Your task to perform on an android device: Open the Play Movies app and select the watchlist tab. Image 0: 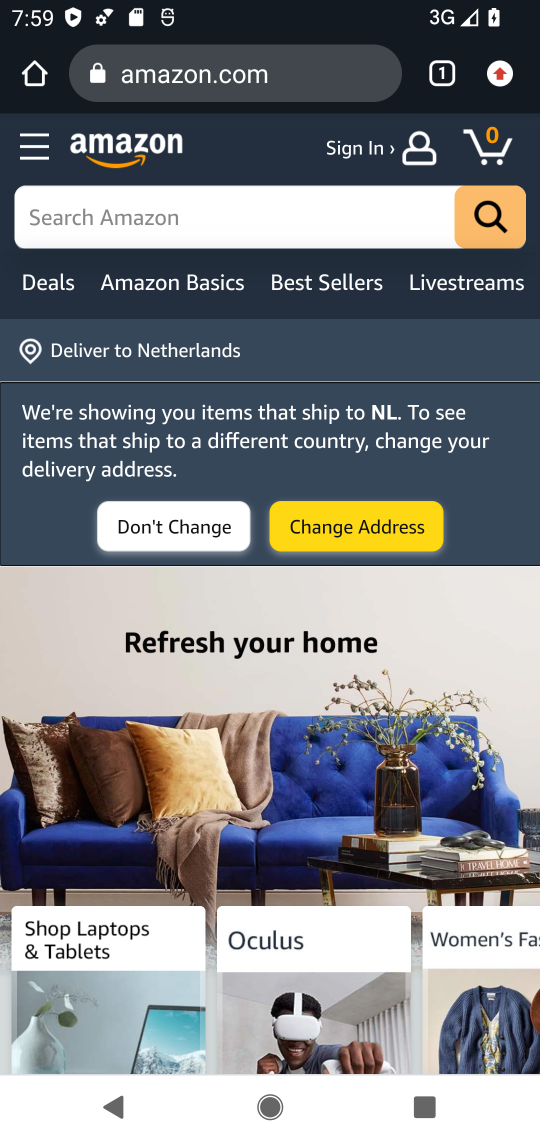
Step 0: press home button
Your task to perform on an android device: Open the Play Movies app and select the watchlist tab. Image 1: 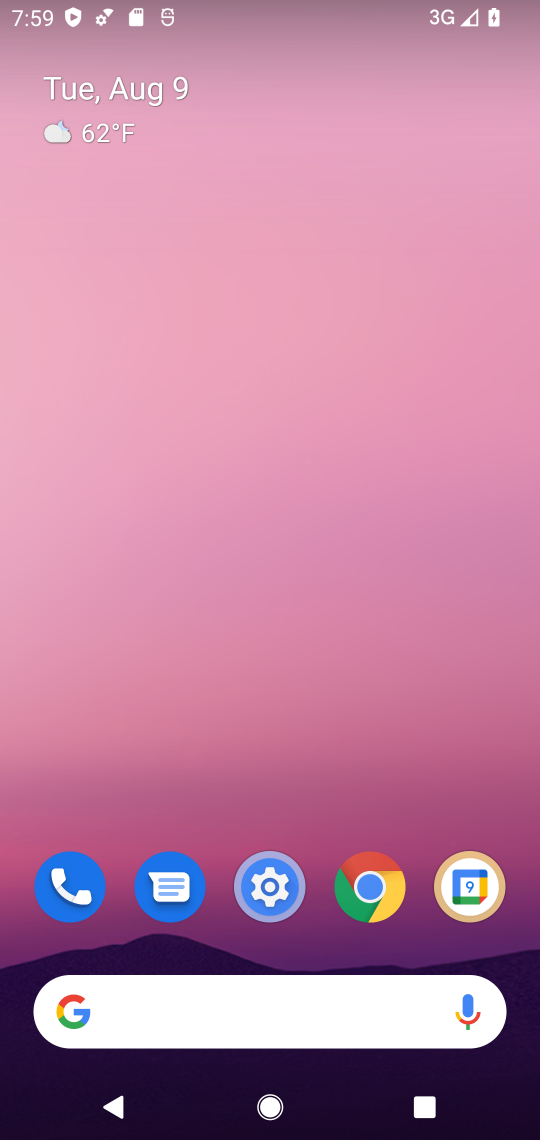
Step 1: task complete